Your task to perform on an android device: turn on location history Image 0: 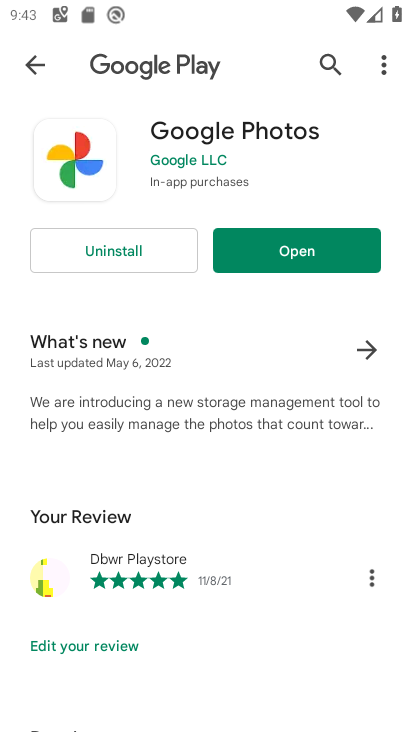
Step 0: press home button
Your task to perform on an android device: turn on location history Image 1: 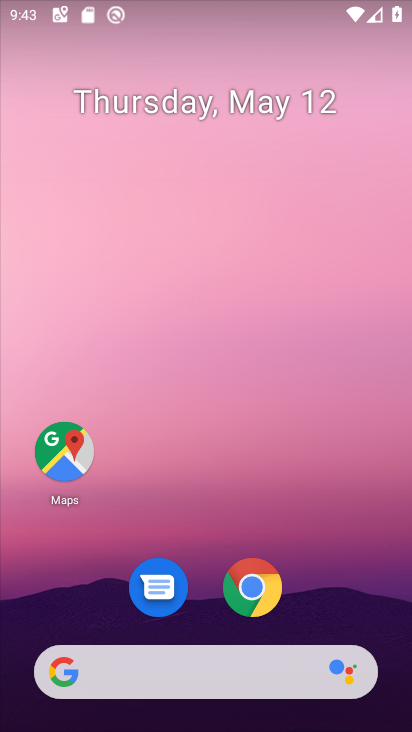
Step 1: drag from (393, 638) to (294, 151)
Your task to perform on an android device: turn on location history Image 2: 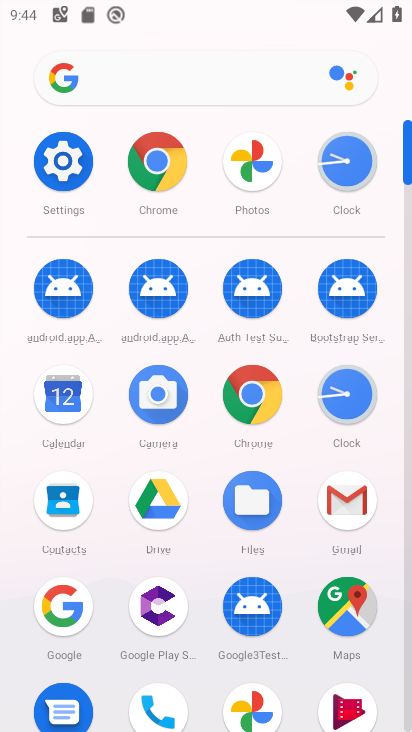
Step 2: click (70, 157)
Your task to perform on an android device: turn on location history Image 3: 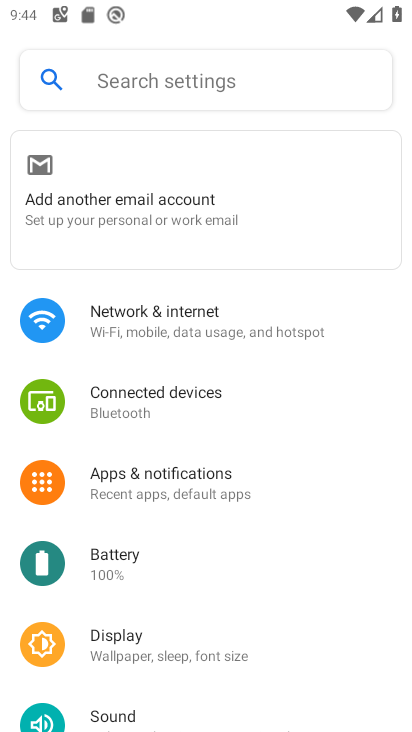
Step 3: drag from (113, 670) to (139, 88)
Your task to perform on an android device: turn on location history Image 4: 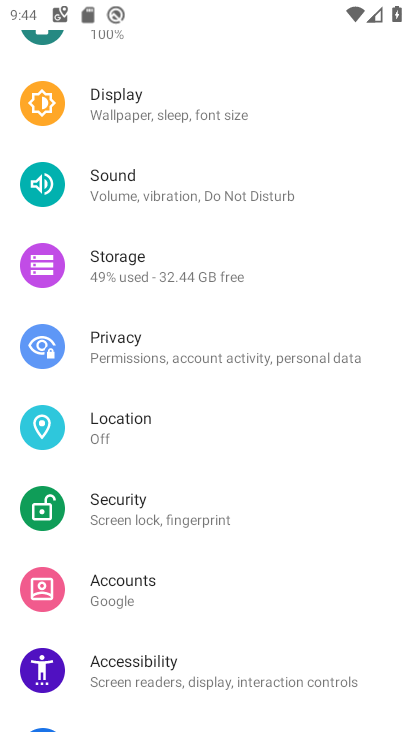
Step 4: click (151, 426)
Your task to perform on an android device: turn on location history Image 5: 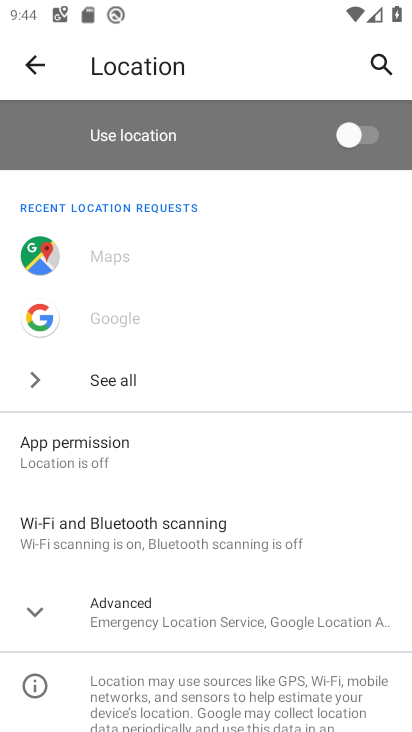
Step 5: click (147, 620)
Your task to perform on an android device: turn on location history Image 6: 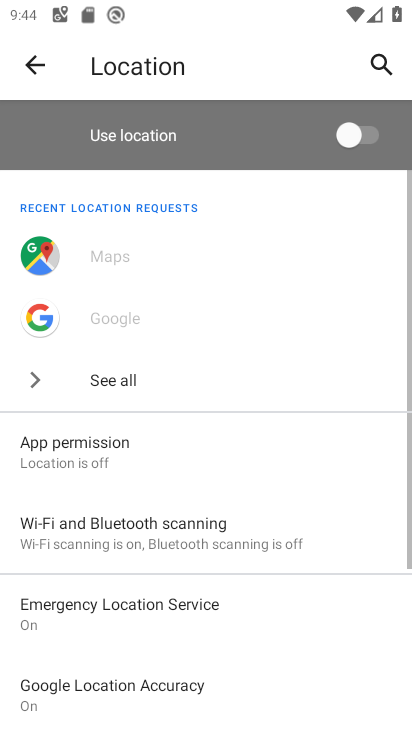
Step 6: drag from (147, 620) to (189, 259)
Your task to perform on an android device: turn on location history Image 7: 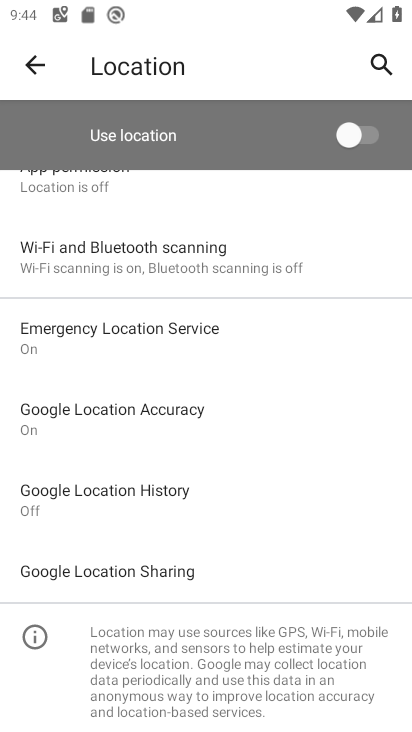
Step 7: click (182, 481)
Your task to perform on an android device: turn on location history Image 8: 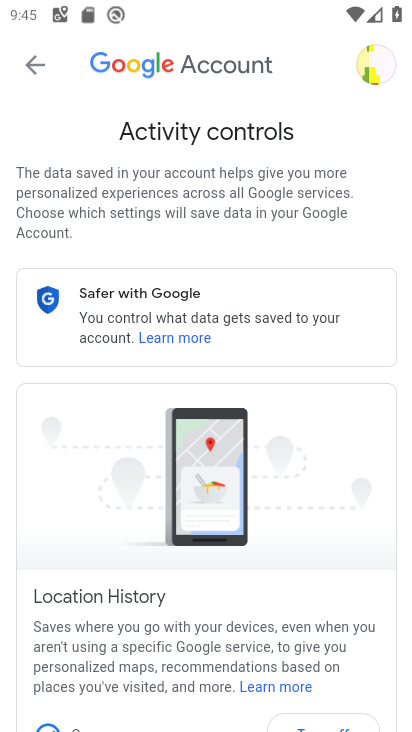
Step 8: drag from (340, 523) to (180, 164)
Your task to perform on an android device: turn on location history Image 9: 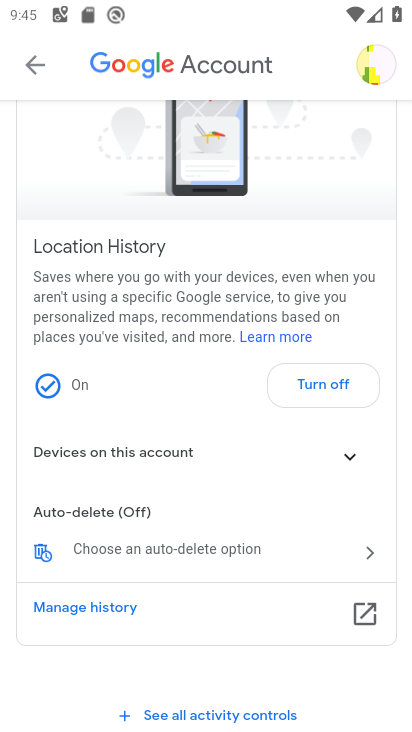
Step 9: click (320, 375)
Your task to perform on an android device: turn on location history Image 10: 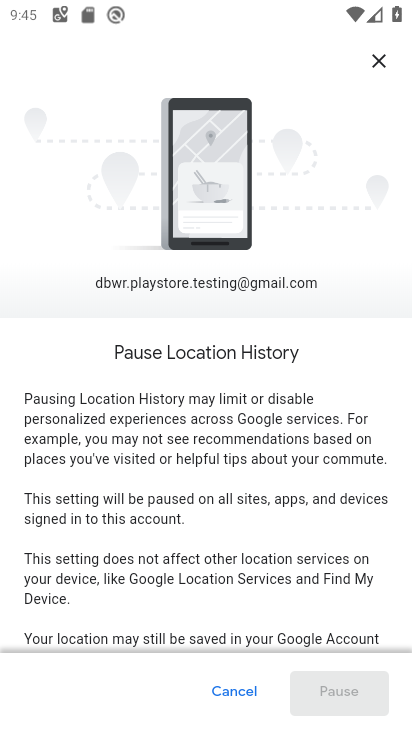
Step 10: task complete